Your task to perform on an android device: turn off picture-in-picture Image 0: 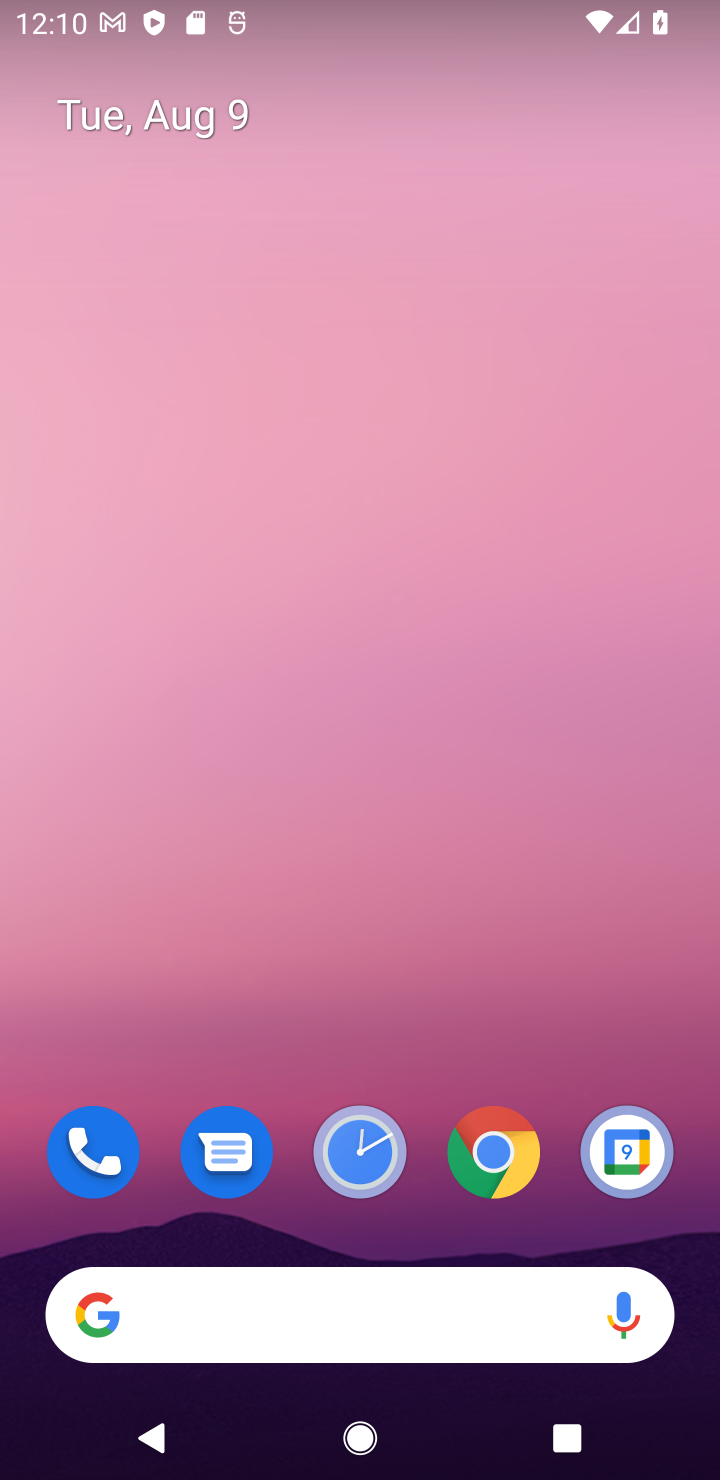
Step 0: click (526, 1140)
Your task to perform on an android device: turn off picture-in-picture Image 1: 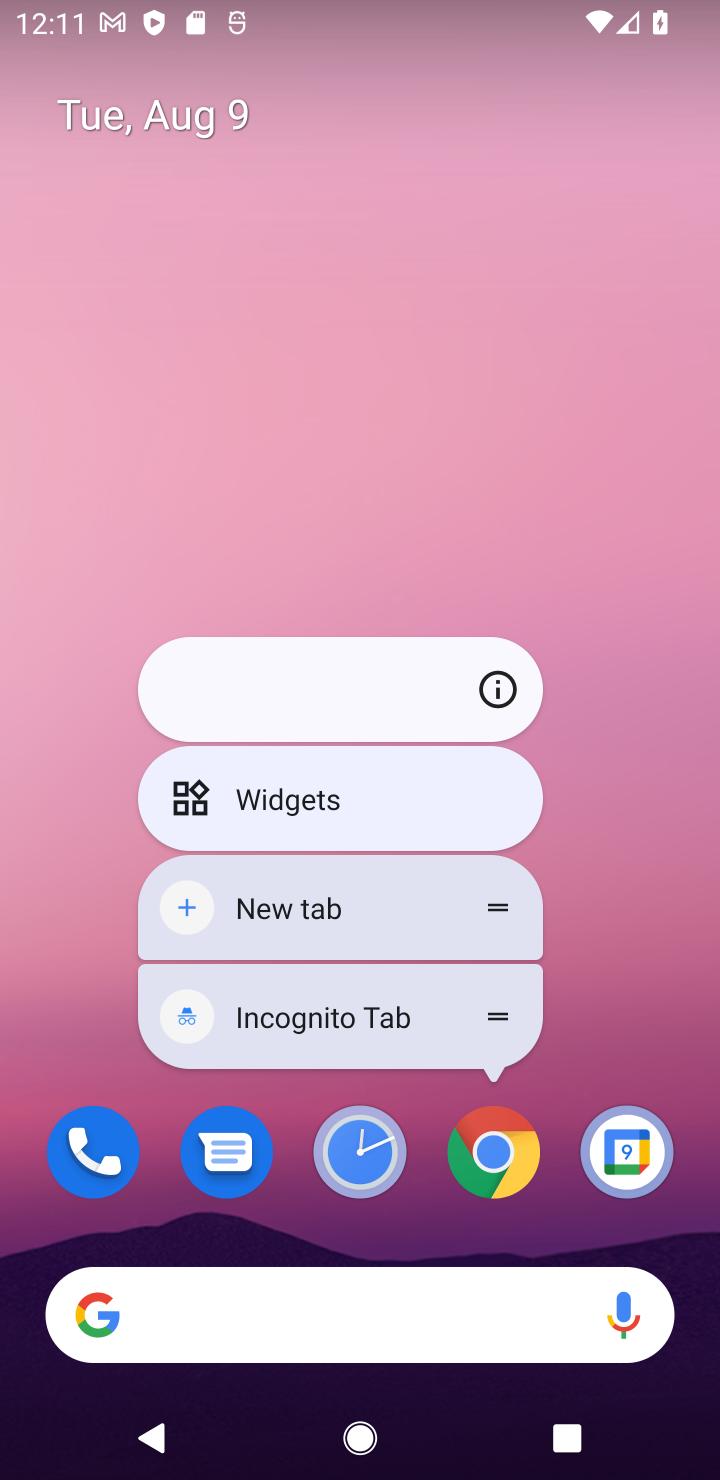
Step 1: click (497, 695)
Your task to perform on an android device: turn off picture-in-picture Image 2: 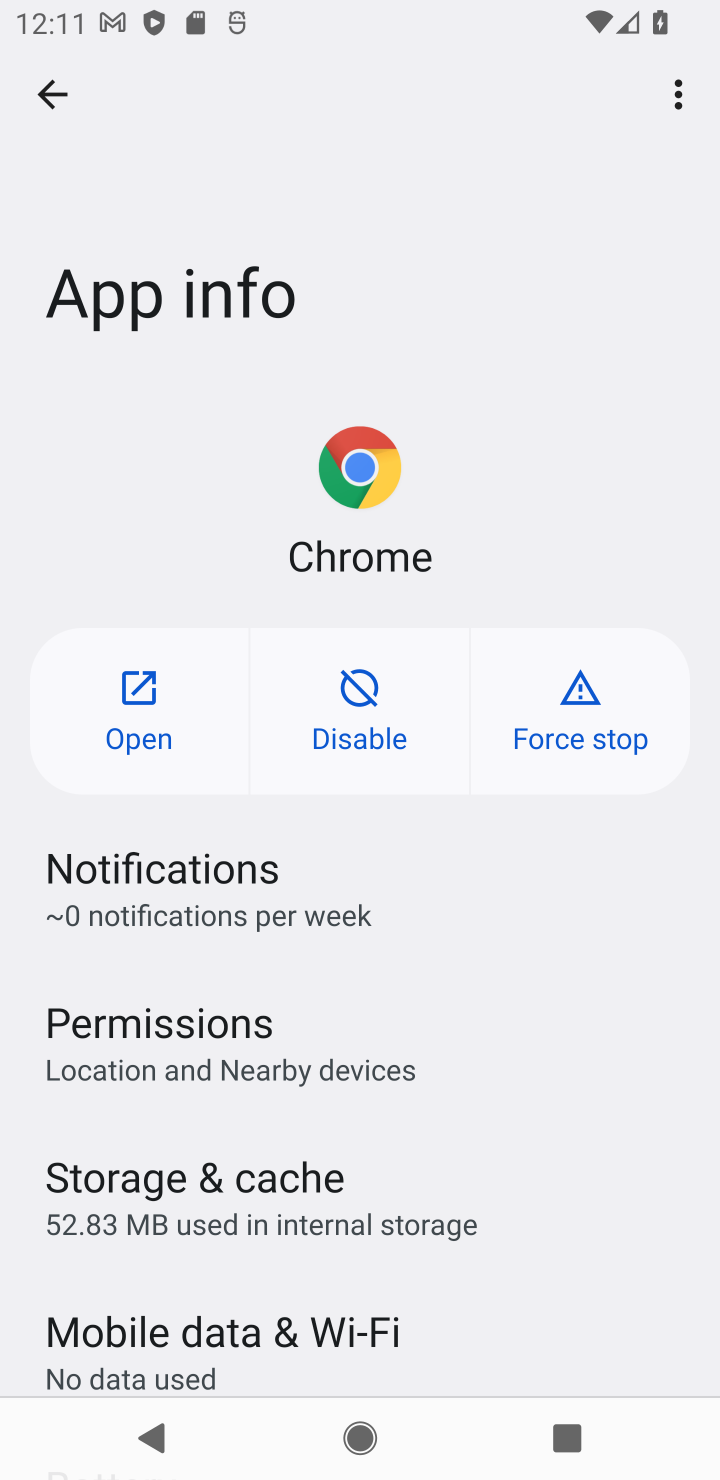
Step 2: drag from (568, 1202) to (519, 35)
Your task to perform on an android device: turn off picture-in-picture Image 3: 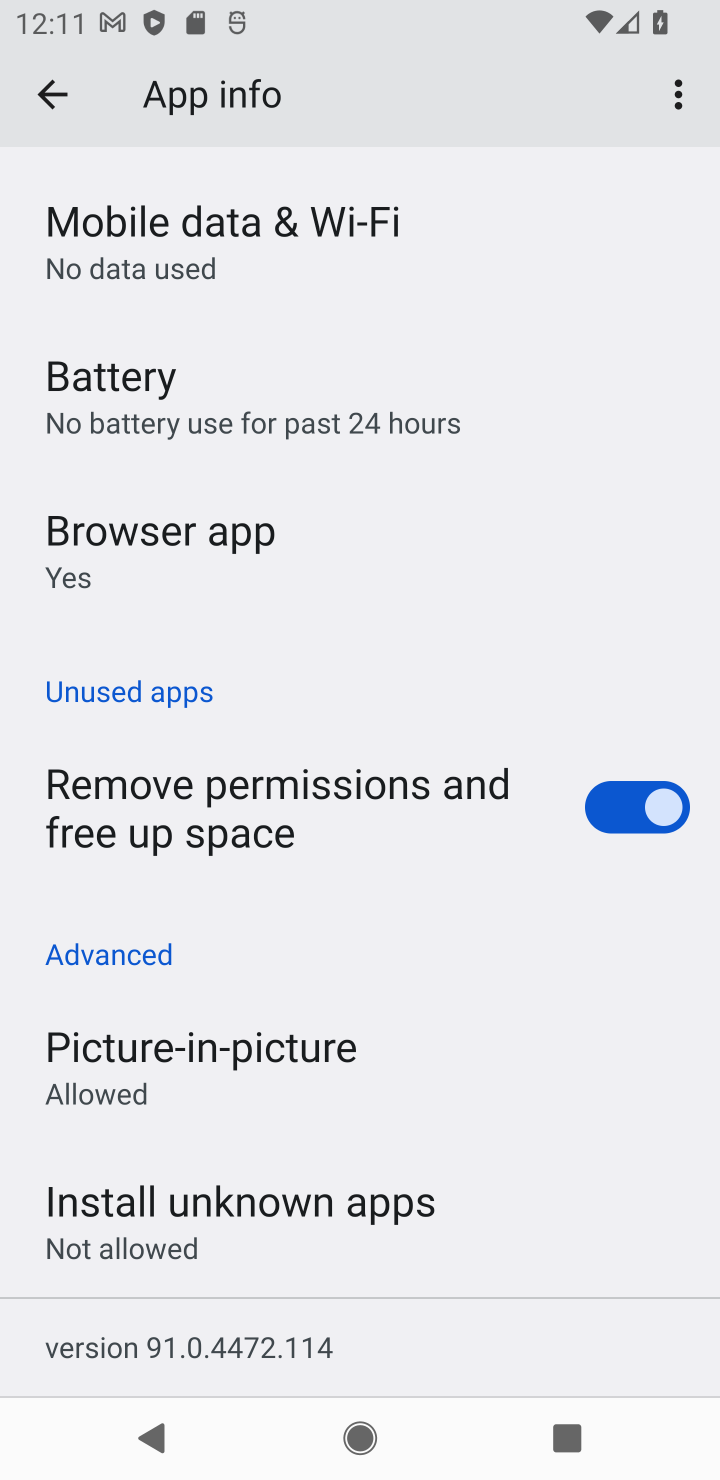
Step 3: drag from (616, 1317) to (508, 716)
Your task to perform on an android device: turn off picture-in-picture Image 4: 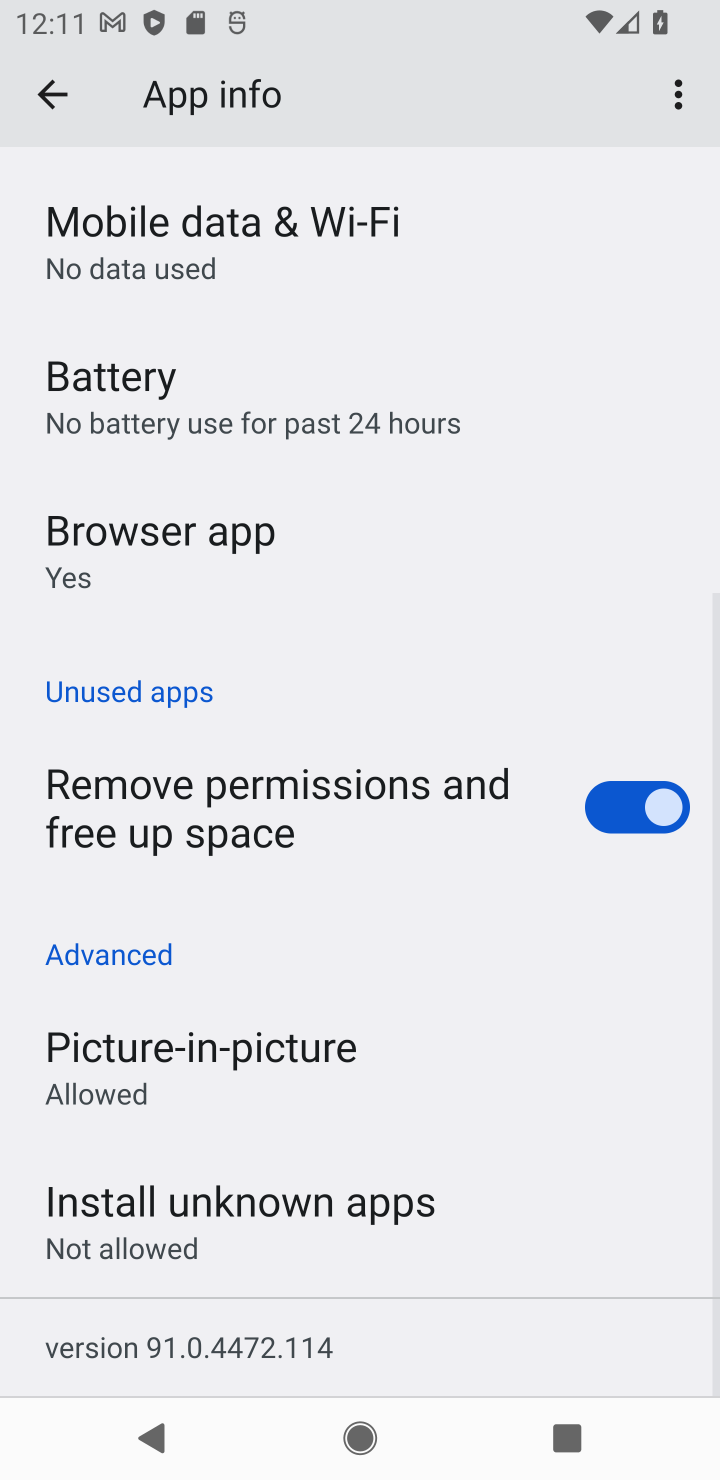
Step 4: click (266, 1023)
Your task to perform on an android device: turn off picture-in-picture Image 5: 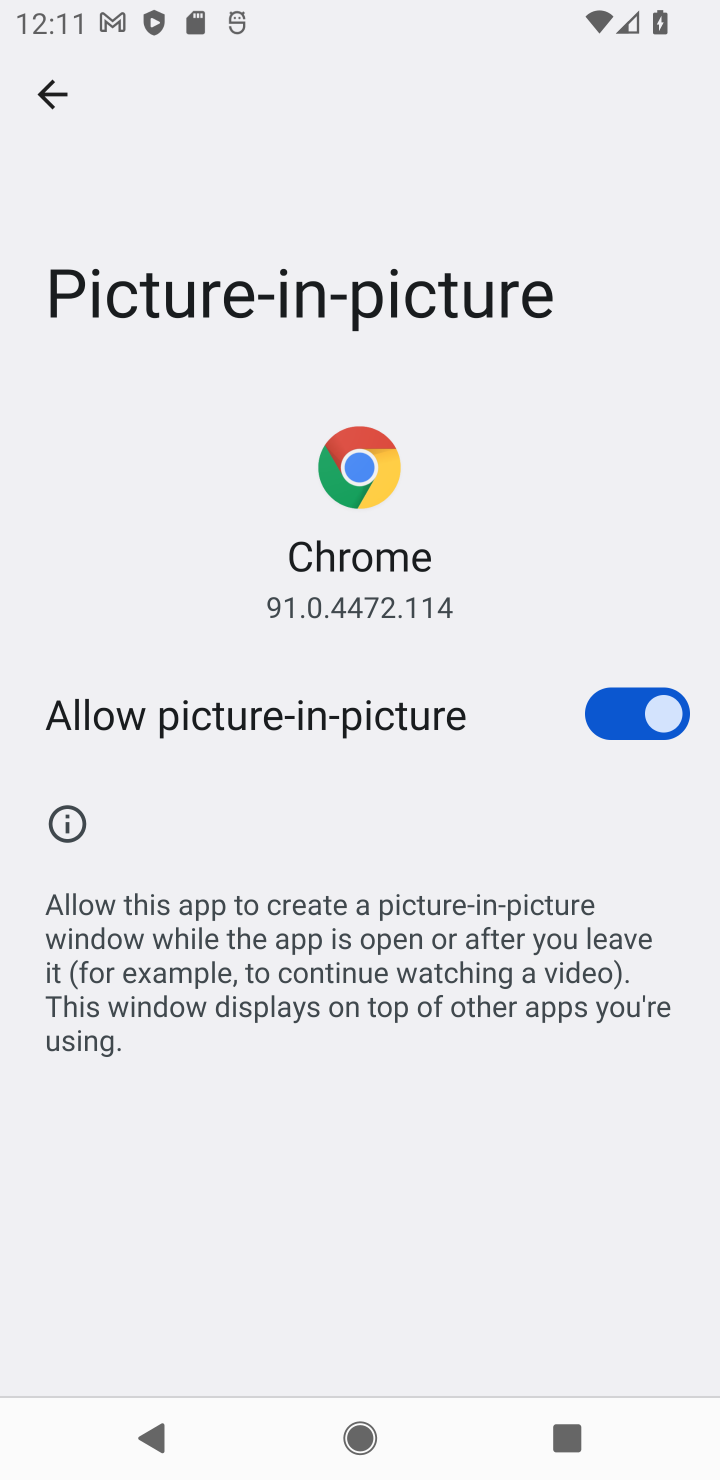
Step 5: click (652, 718)
Your task to perform on an android device: turn off picture-in-picture Image 6: 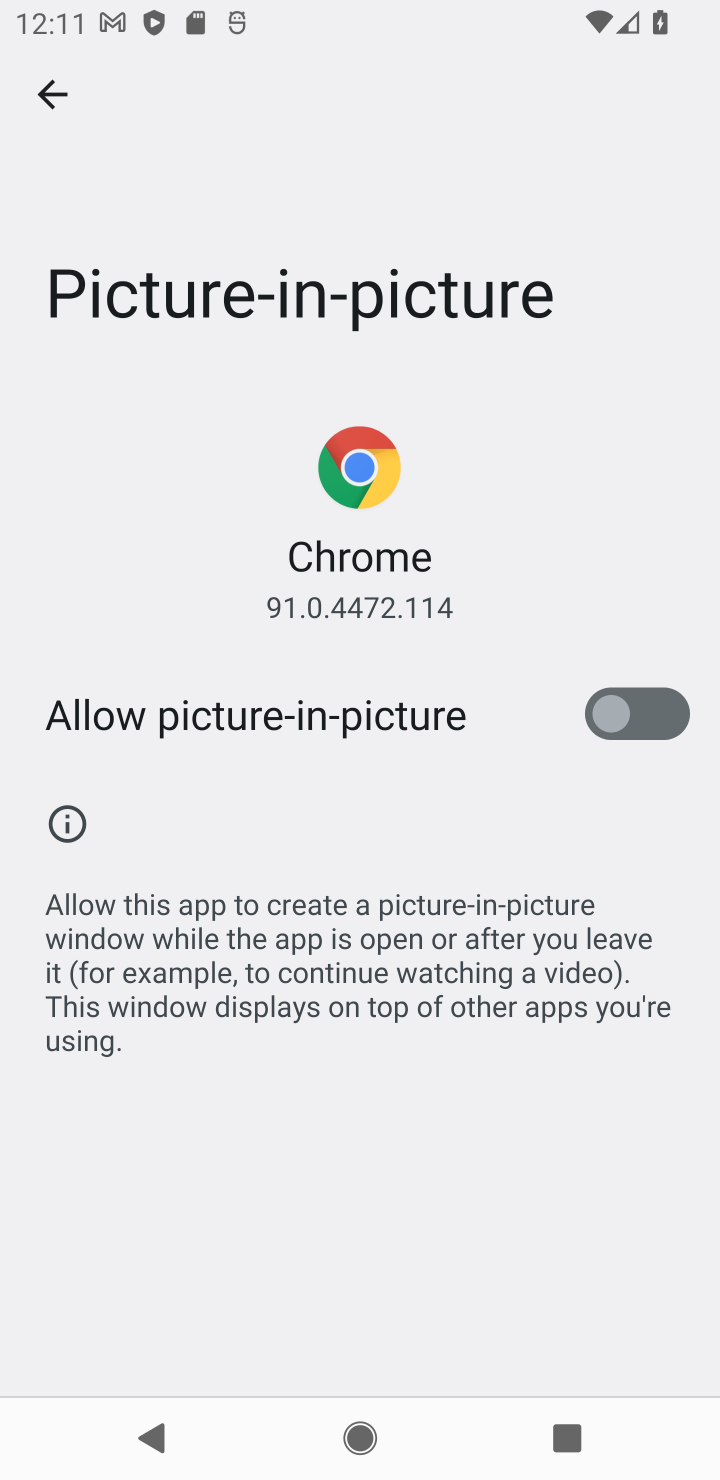
Step 6: task complete